Your task to perform on an android device: Open Chrome and go to the settings page Image 0: 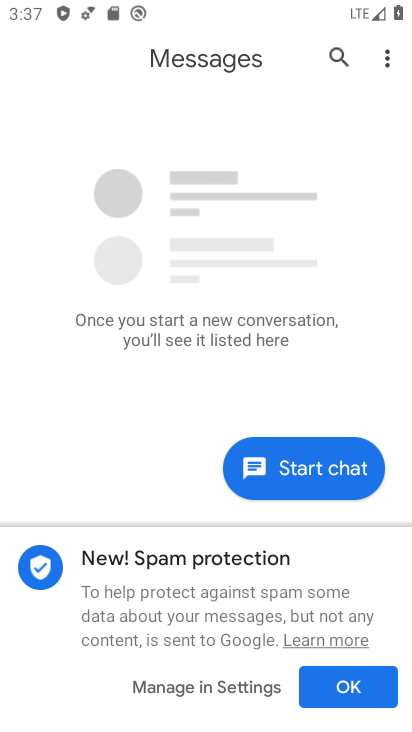
Step 0: press home button
Your task to perform on an android device: Open Chrome and go to the settings page Image 1: 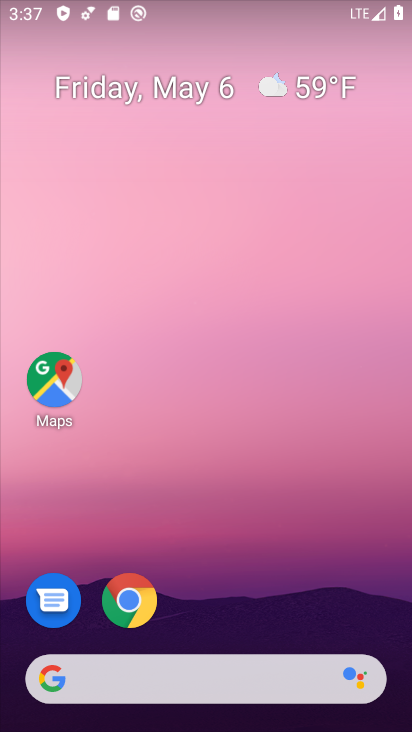
Step 1: click (137, 612)
Your task to perform on an android device: Open Chrome and go to the settings page Image 2: 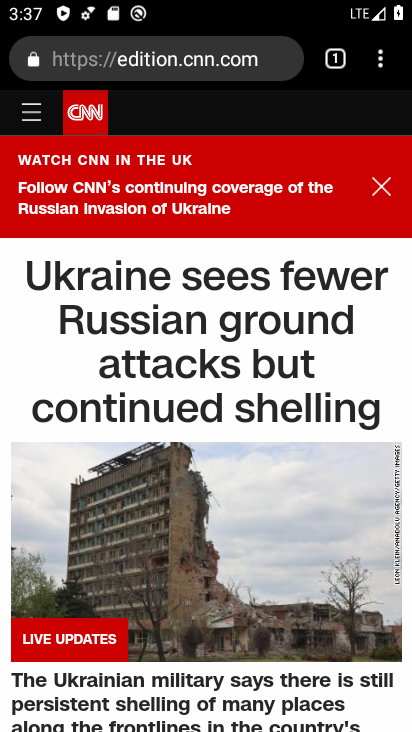
Step 2: click (375, 68)
Your task to perform on an android device: Open Chrome and go to the settings page Image 3: 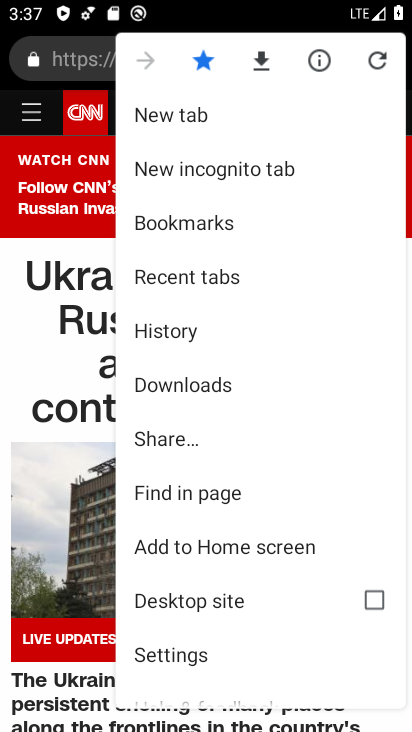
Step 3: drag from (395, 84) to (237, 20)
Your task to perform on an android device: Open Chrome and go to the settings page Image 4: 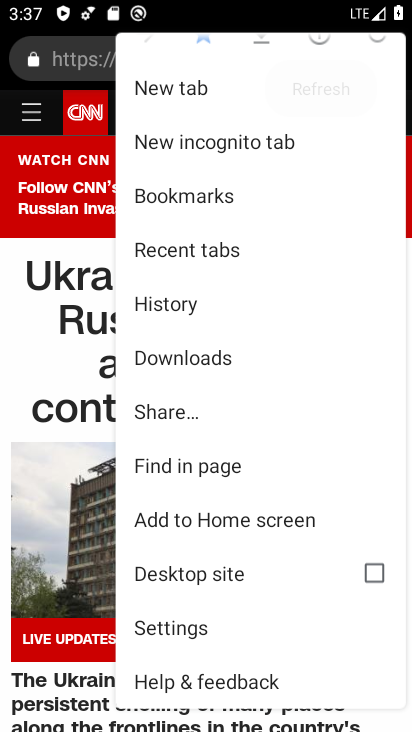
Step 4: click (188, 631)
Your task to perform on an android device: Open Chrome and go to the settings page Image 5: 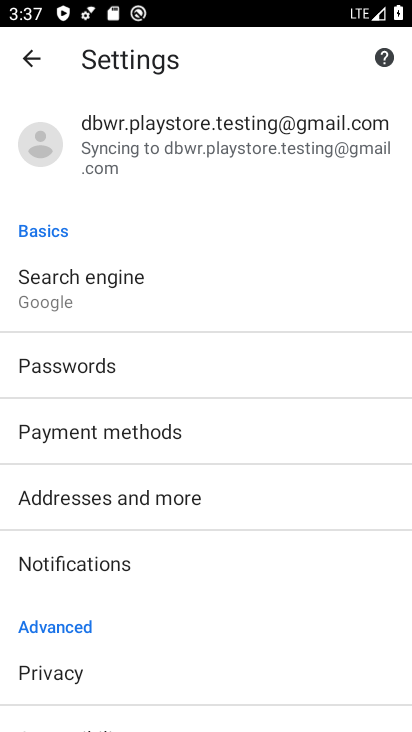
Step 5: task complete